Your task to perform on an android device: Go to eBay Image 0: 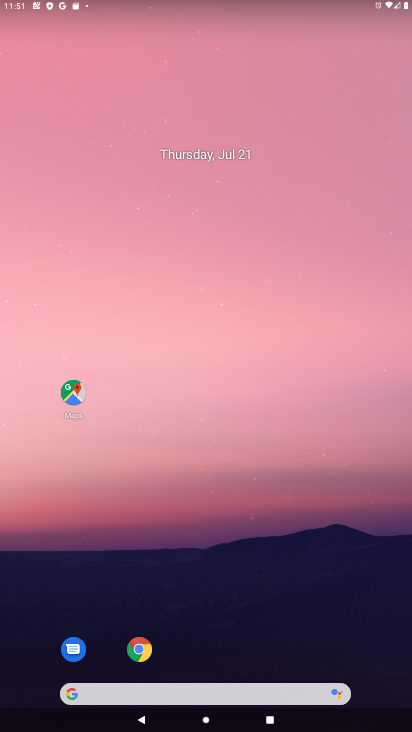
Step 0: drag from (284, 618) to (318, 118)
Your task to perform on an android device: Go to eBay Image 1: 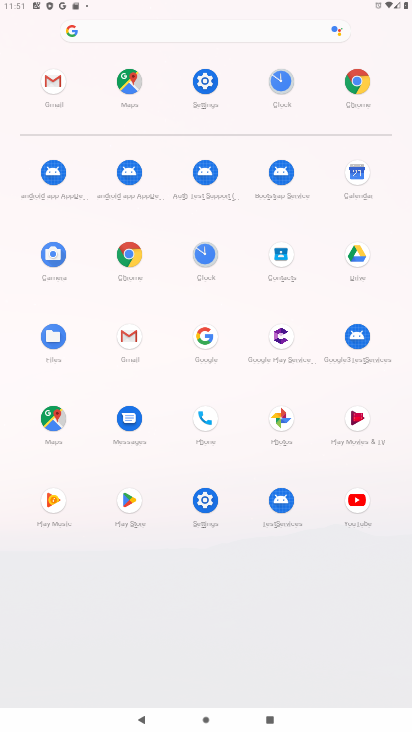
Step 1: click (358, 79)
Your task to perform on an android device: Go to eBay Image 2: 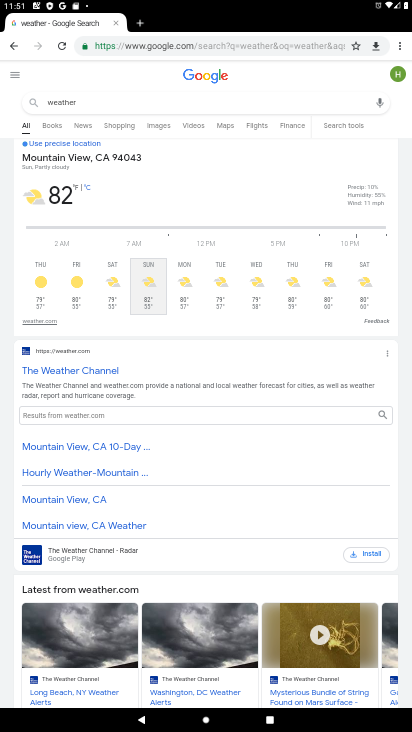
Step 2: click (203, 44)
Your task to perform on an android device: Go to eBay Image 3: 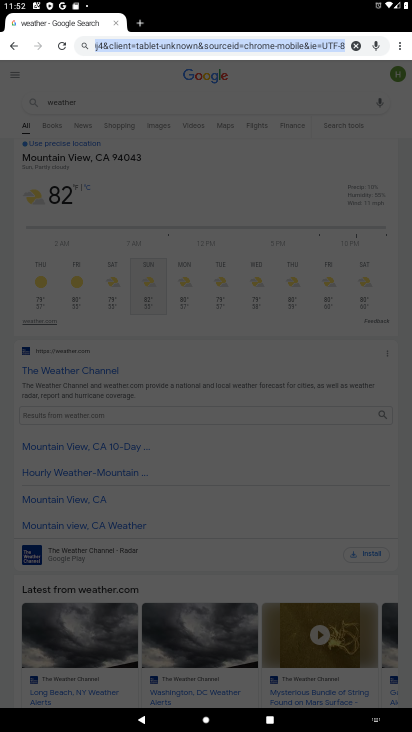
Step 3: type "ebay"
Your task to perform on an android device: Go to eBay Image 4: 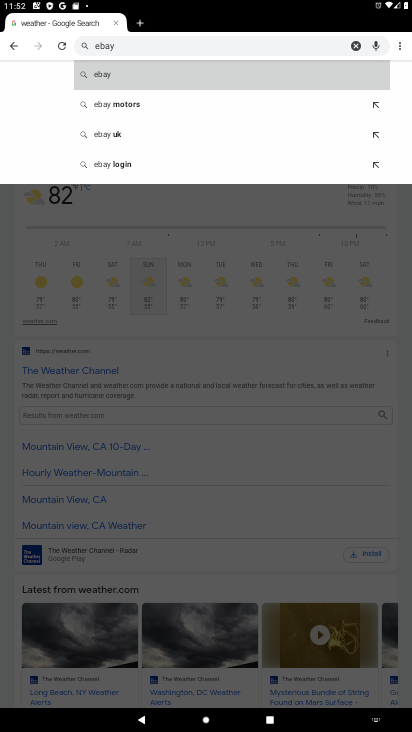
Step 4: click (134, 69)
Your task to perform on an android device: Go to eBay Image 5: 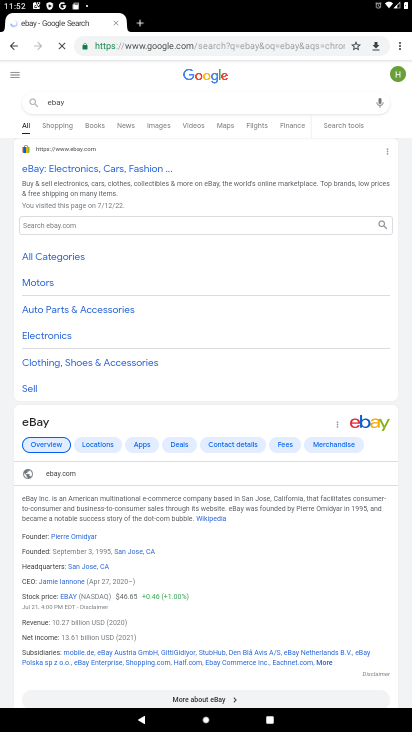
Step 5: click (83, 175)
Your task to perform on an android device: Go to eBay Image 6: 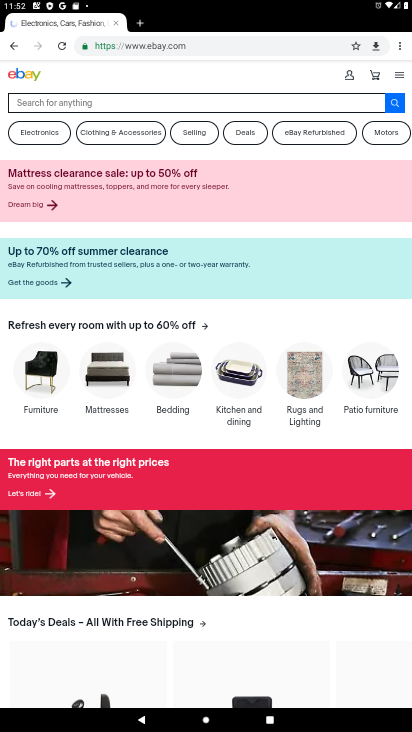
Step 6: task complete